Your task to perform on an android device: Is it going to rain tomorrow? Image 0: 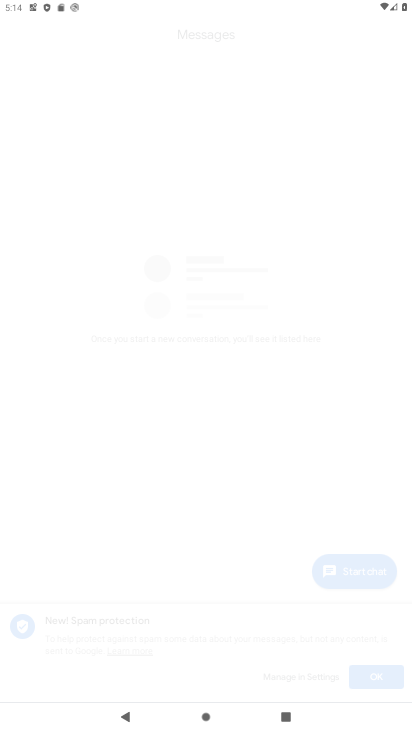
Step 0: press home button
Your task to perform on an android device: Is it going to rain tomorrow? Image 1: 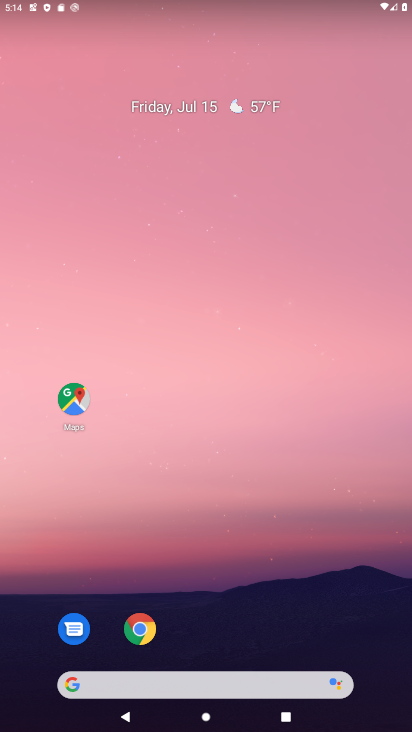
Step 1: click (75, 687)
Your task to perform on an android device: Is it going to rain tomorrow? Image 2: 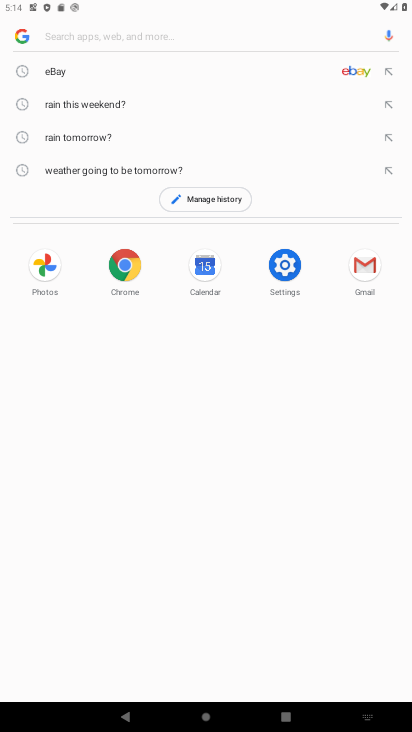
Step 2: type "Is it going to rain tomorrow?"
Your task to perform on an android device: Is it going to rain tomorrow? Image 3: 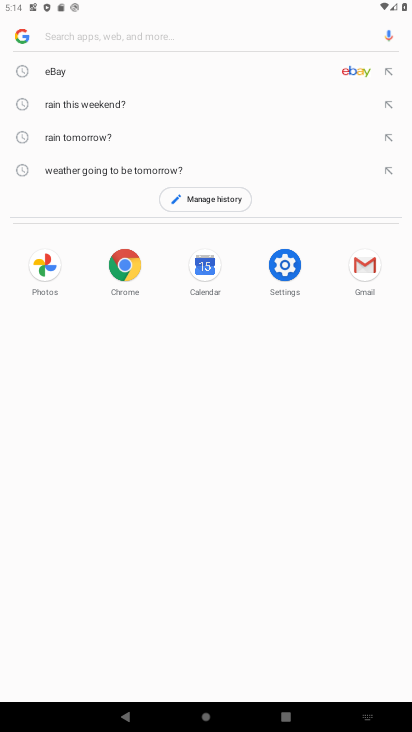
Step 3: click (91, 34)
Your task to perform on an android device: Is it going to rain tomorrow? Image 4: 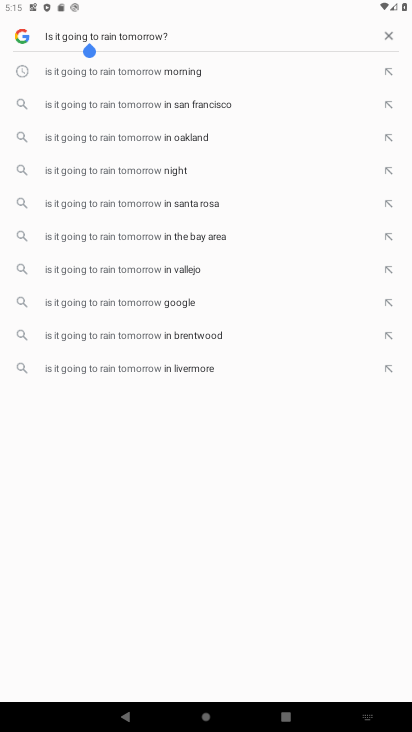
Step 4: press enter
Your task to perform on an android device: Is it going to rain tomorrow? Image 5: 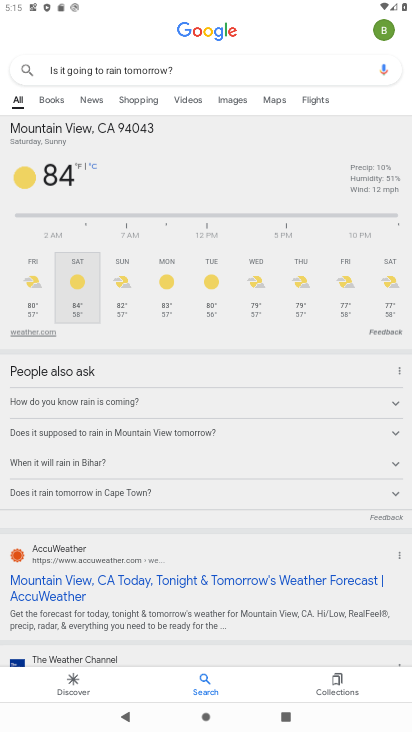
Step 5: task complete